Your task to perform on an android device: See recent photos Image 0: 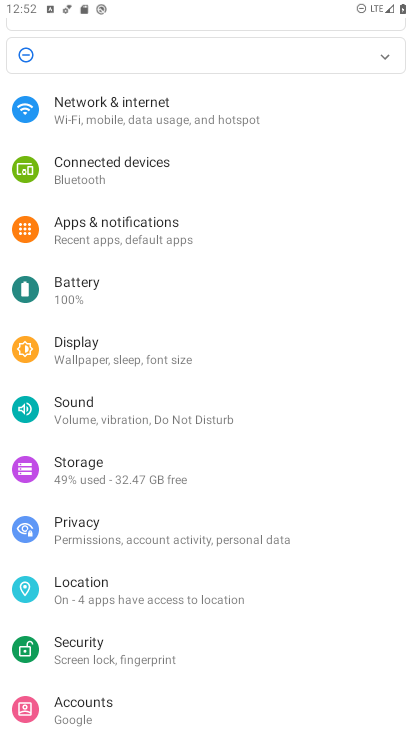
Step 0: press home button
Your task to perform on an android device: See recent photos Image 1: 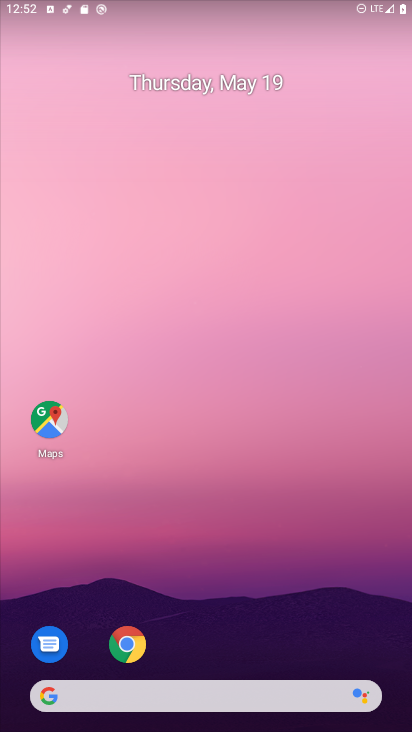
Step 1: drag from (384, 604) to (245, 55)
Your task to perform on an android device: See recent photos Image 2: 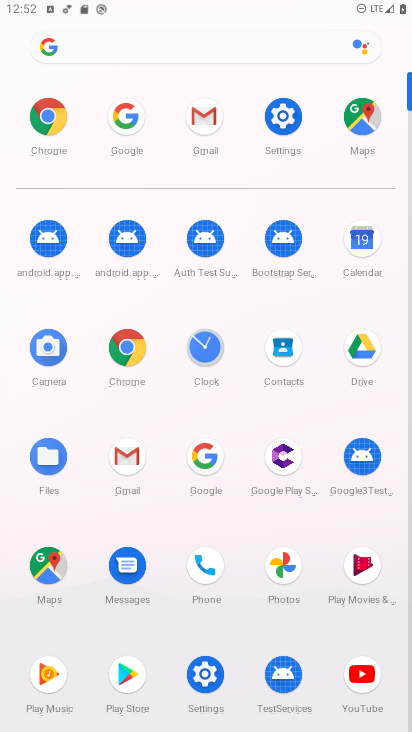
Step 2: click (275, 593)
Your task to perform on an android device: See recent photos Image 3: 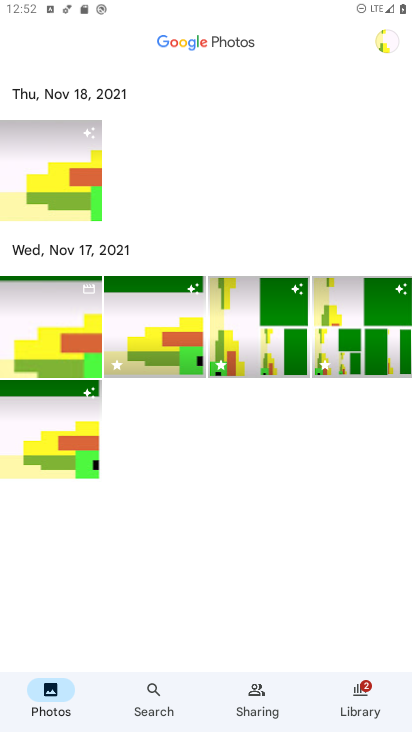
Step 3: click (84, 185)
Your task to perform on an android device: See recent photos Image 4: 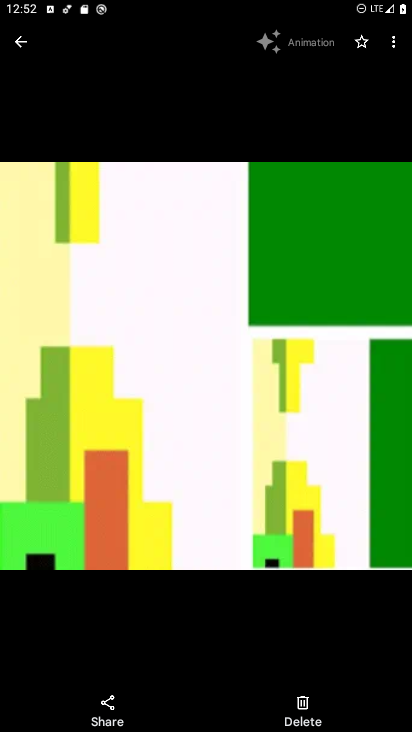
Step 4: task complete